Your task to perform on an android device: add a contact in the contacts app Image 0: 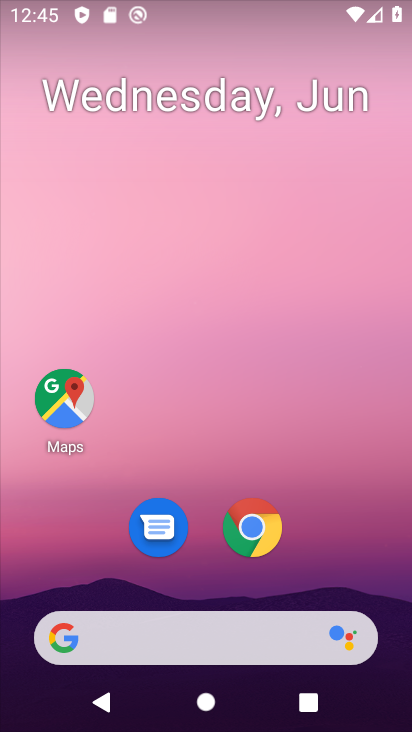
Step 0: drag from (222, 615) to (252, 164)
Your task to perform on an android device: add a contact in the contacts app Image 1: 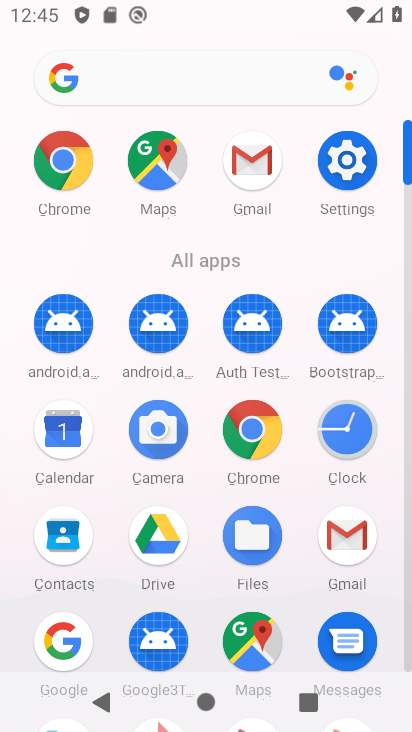
Step 1: click (73, 521)
Your task to perform on an android device: add a contact in the contacts app Image 2: 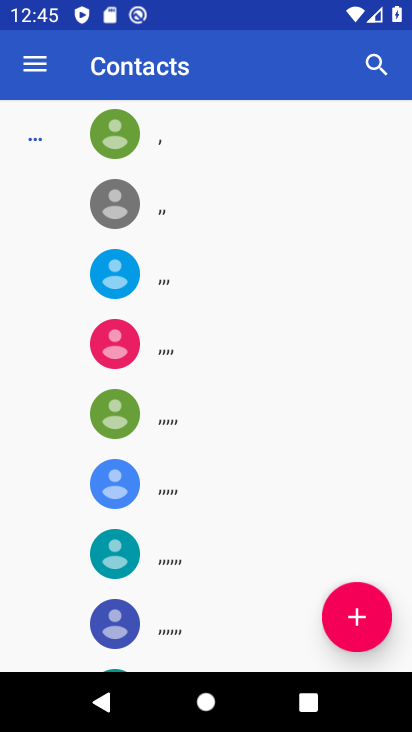
Step 2: click (352, 606)
Your task to perform on an android device: add a contact in the contacts app Image 3: 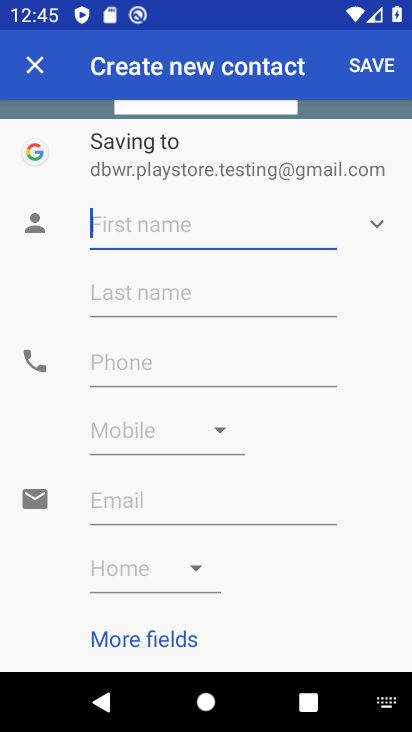
Step 3: type "sdfns"
Your task to perform on an android device: add a contact in the contacts app Image 4: 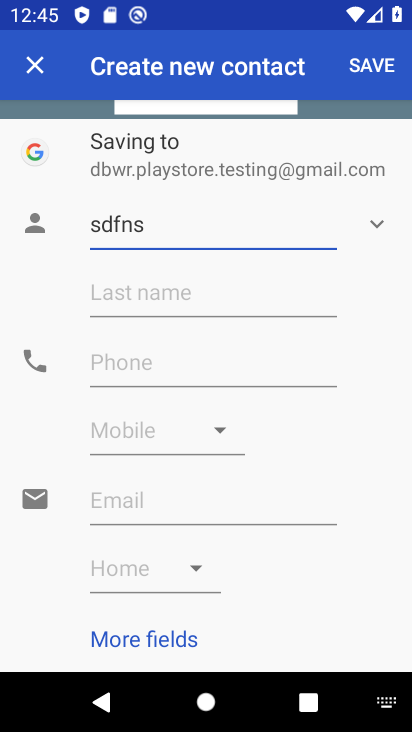
Step 4: click (274, 358)
Your task to perform on an android device: add a contact in the contacts app Image 5: 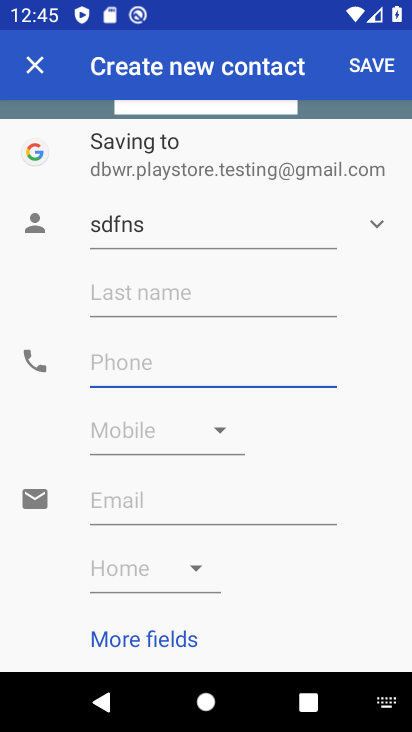
Step 5: type "322378"
Your task to perform on an android device: add a contact in the contacts app Image 6: 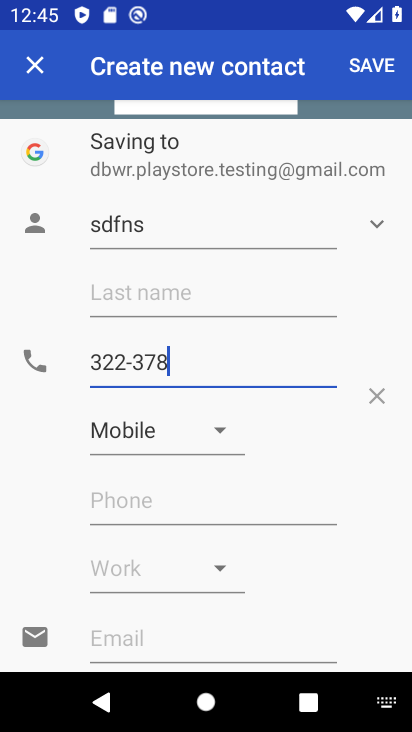
Step 6: click (393, 61)
Your task to perform on an android device: add a contact in the contacts app Image 7: 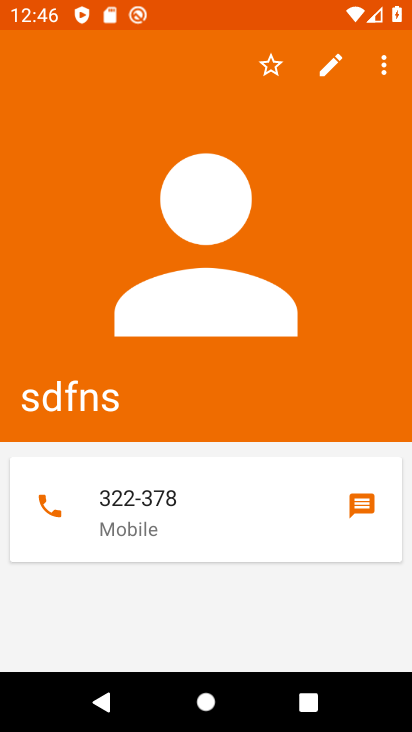
Step 7: task complete